Your task to perform on an android device: Find coffee shops on Maps Image 0: 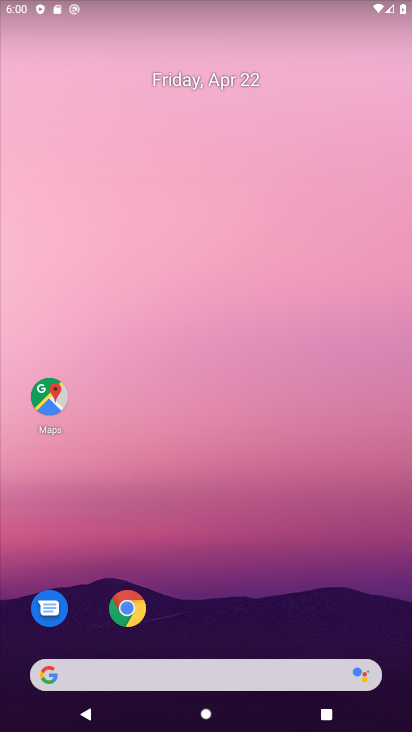
Step 0: click (52, 405)
Your task to perform on an android device: Find coffee shops on Maps Image 1: 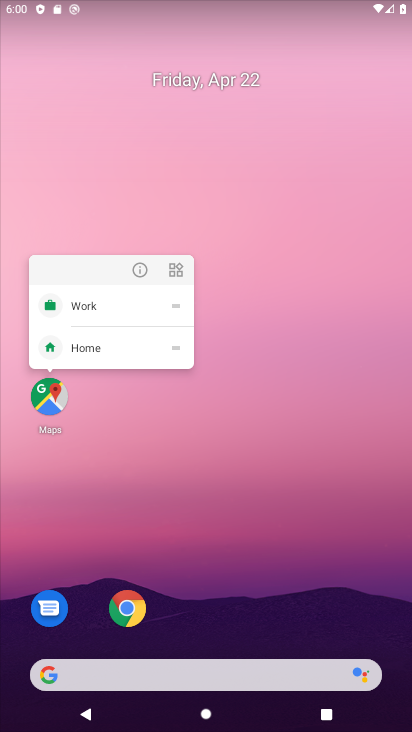
Step 1: click (57, 408)
Your task to perform on an android device: Find coffee shops on Maps Image 2: 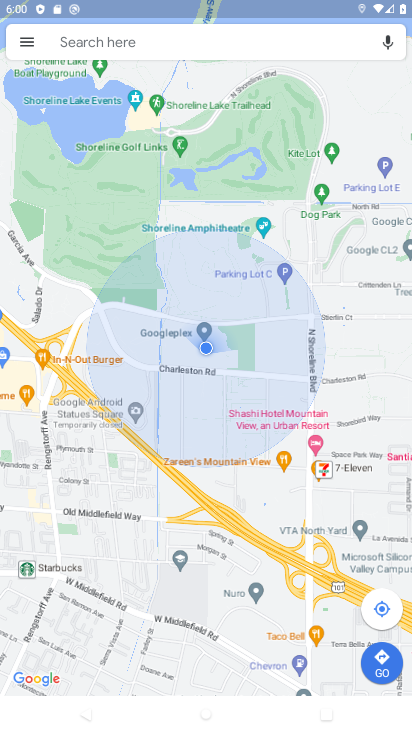
Step 2: click (180, 46)
Your task to perform on an android device: Find coffee shops on Maps Image 3: 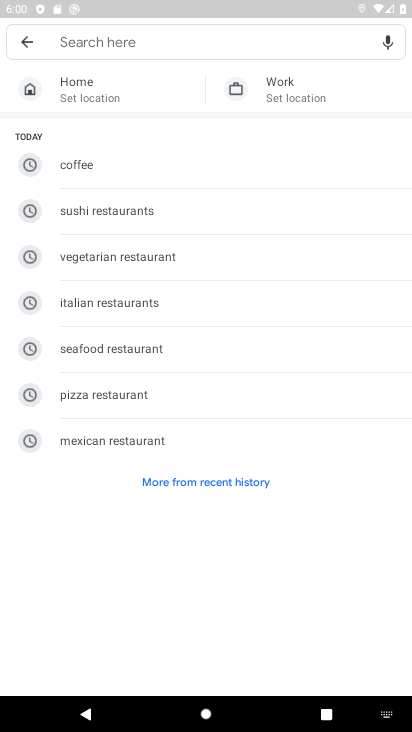
Step 3: click (87, 162)
Your task to perform on an android device: Find coffee shops on Maps Image 4: 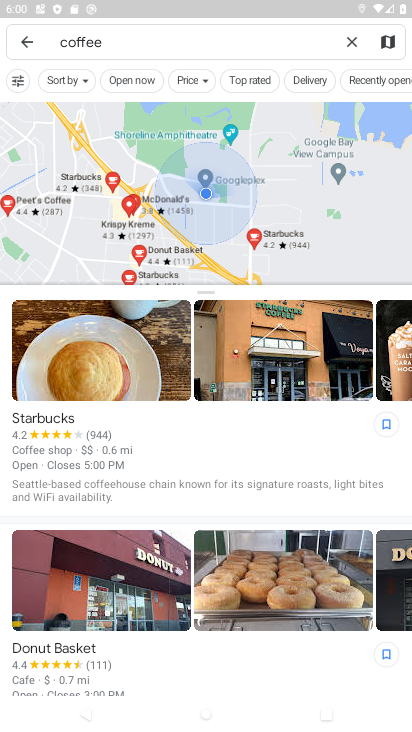
Step 4: task complete